Your task to perform on an android device: What is the recent news? Image 0: 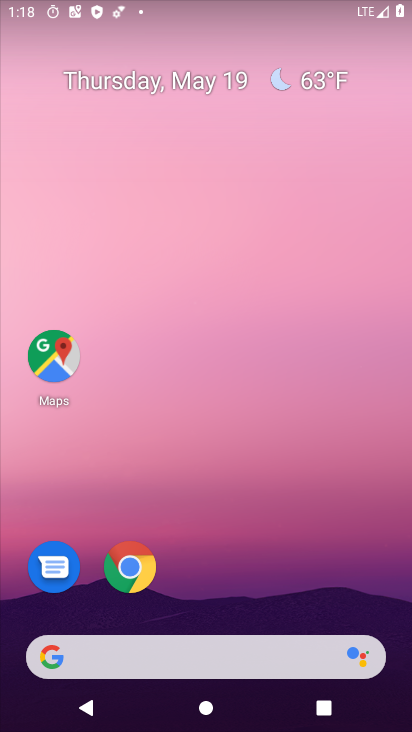
Step 0: click (58, 661)
Your task to perform on an android device: What is the recent news? Image 1: 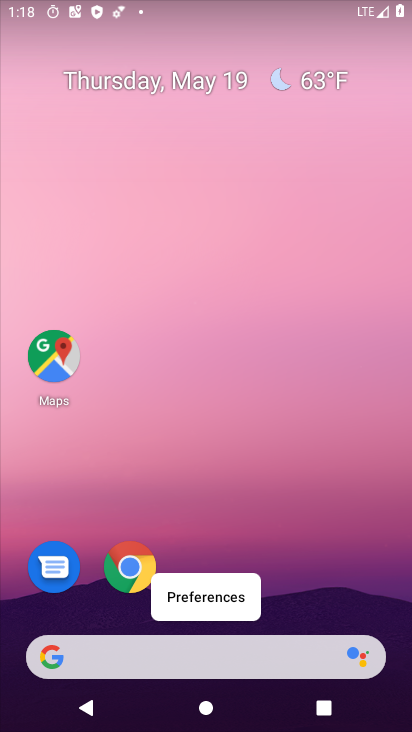
Step 1: click (58, 661)
Your task to perform on an android device: What is the recent news? Image 2: 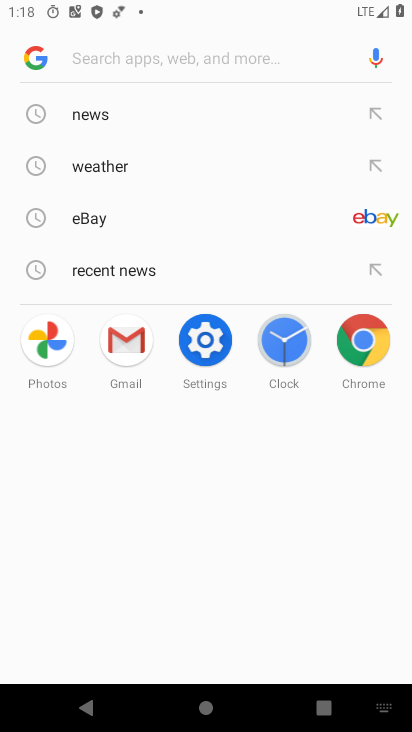
Step 2: click (102, 115)
Your task to perform on an android device: What is the recent news? Image 3: 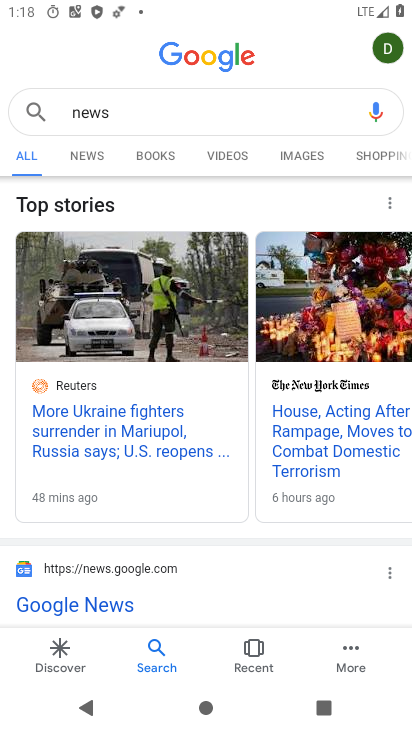
Step 3: click (98, 148)
Your task to perform on an android device: What is the recent news? Image 4: 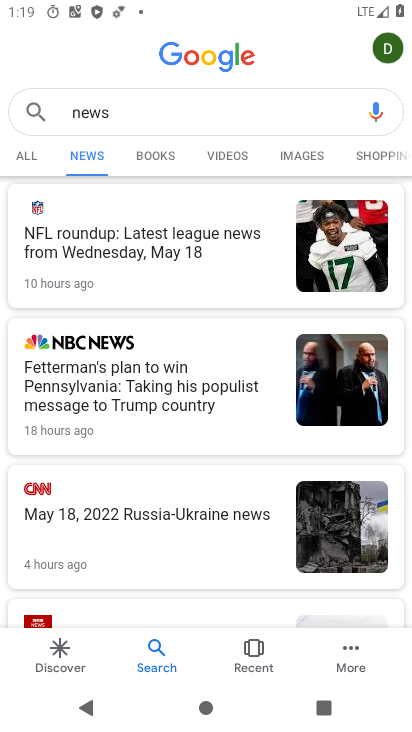
Step 4: task complete